Your task to perform on an android device: Play the last video I watched on Youtube Image 0: 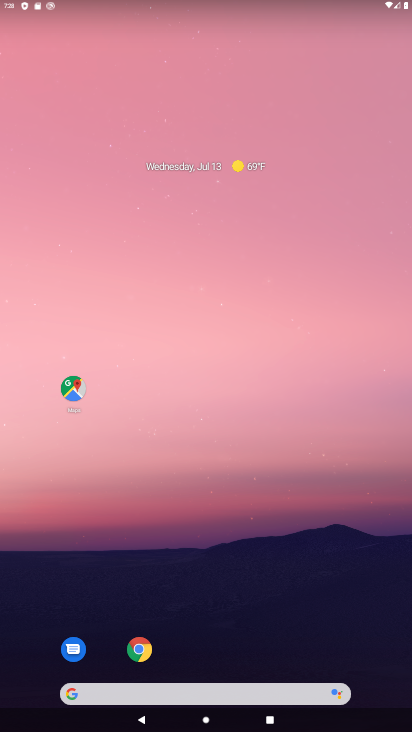
Step 0: drag from (210, 698) to (260, 95)
Your task to perform on an android device: Play the last video I watched on Youtube Image 1: 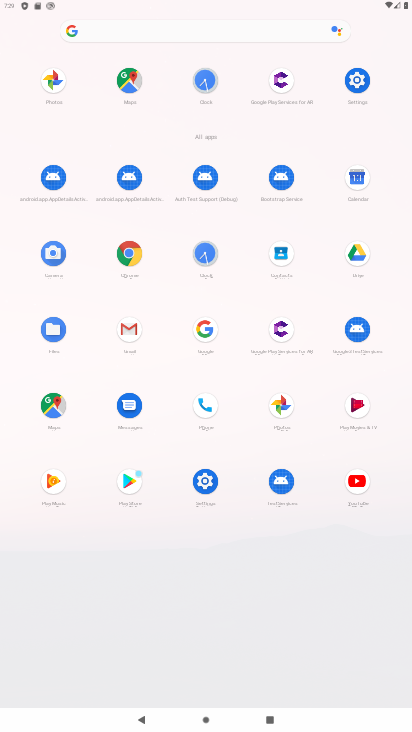
Step 1: click (358, 483)
Your task to perform on an android device: Play the last video I watched on Youtube Image 2: 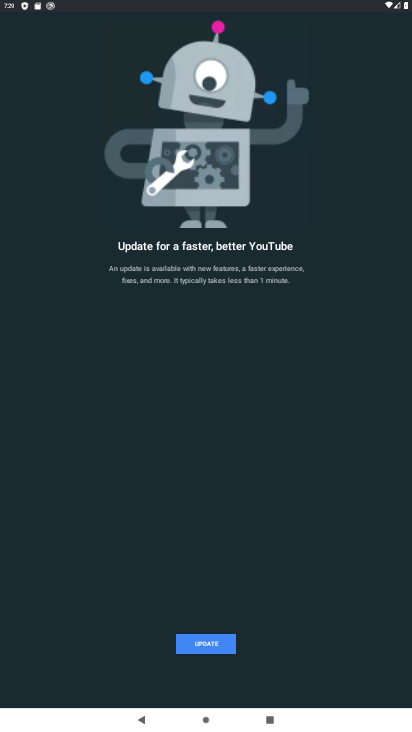
Step 2: click (213, 643)
Your task to perform on an android device: Play the last video I watched on Youtube Image 3: 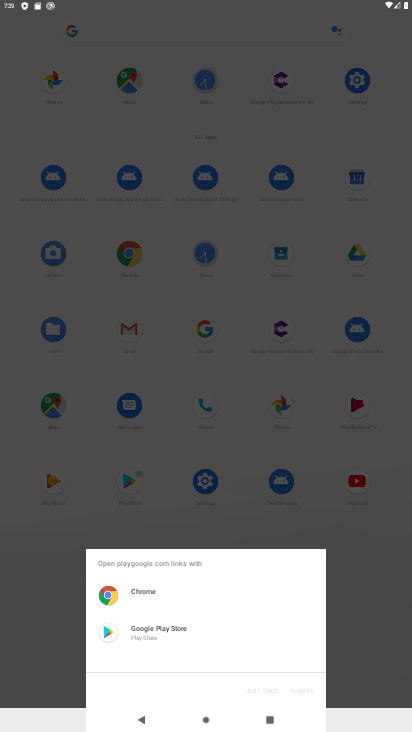
Step 3: click (172, 637)
Your task to perform on an android device: Play the last video I watched on Youtube Image 4: 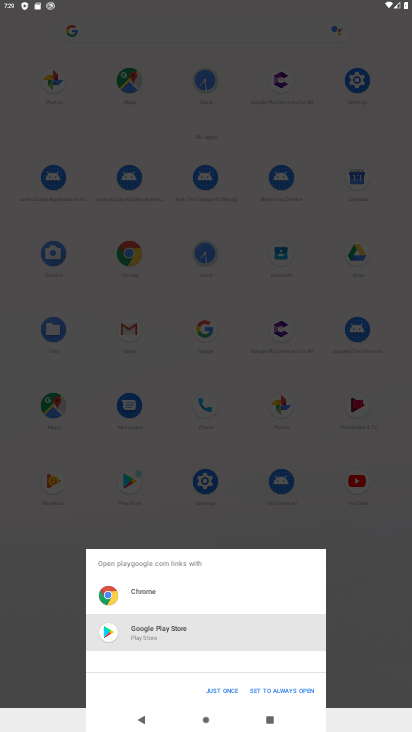
Step 4: click (220, 689)
Your task to perform on an android device: Play the last video I watched on Youtube Image 5: 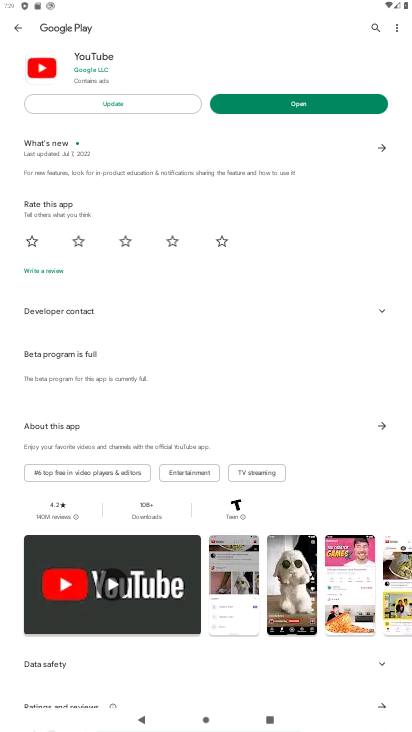
Step 5: click (114, 104)
Your task to perform on an android device: Play the last video I watched on Youtube Image 6: 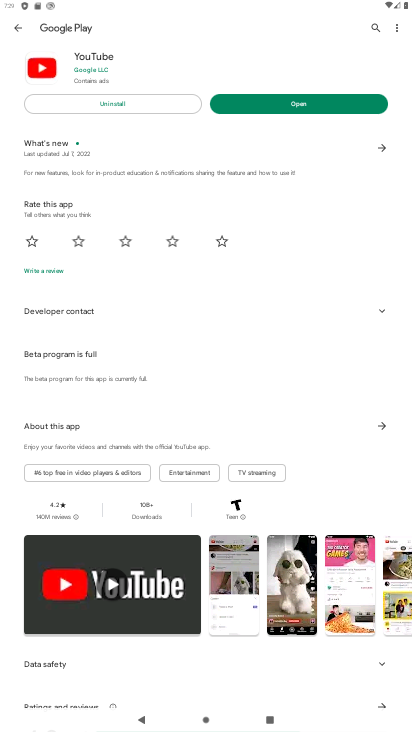
Step 6: click (311, 104)
Your task to perform on an android device: Play the last video I watched on Youtube Image 7: 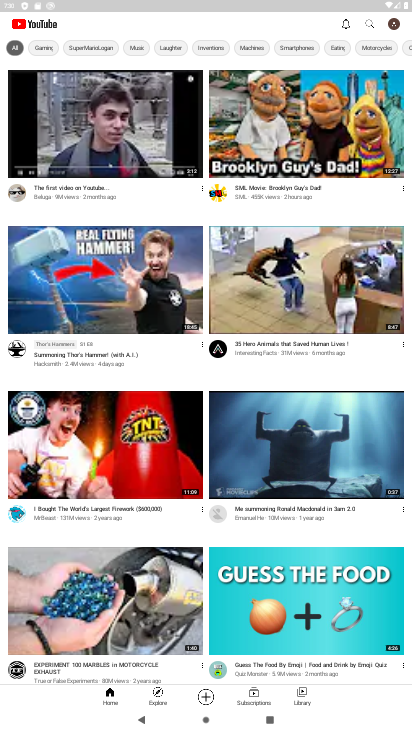
Step 7: click (305, 696)
Your task to perform on an android device: Play the last video I watched on Youtube Image 8: 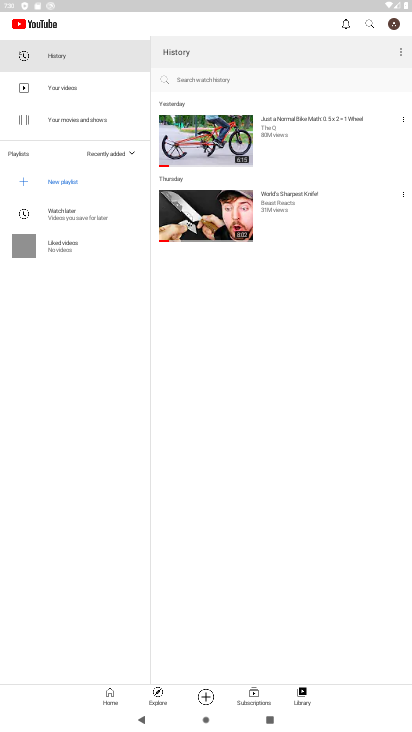
Step 8: click (223, 143)
Your task to perform on an android device: Play the last video I watched on Youtube Image 9: 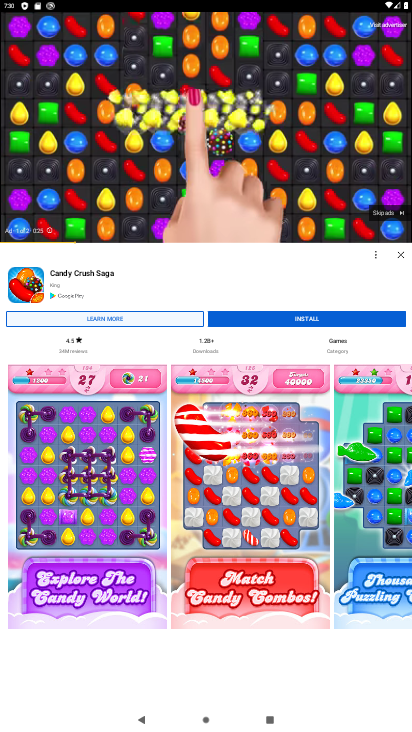
Step 9: click (394, 217)
Your task to perform on an android device: Play the last video I watched on Youtube Image 10: 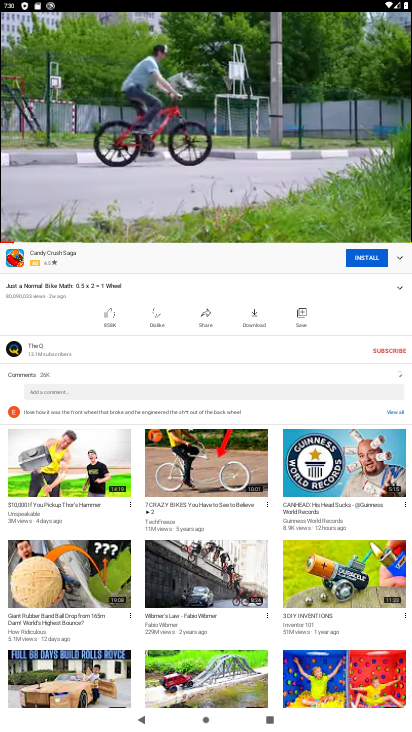
Step 10: click (234, 124)
Your task to perform on an android device: Play the last video I watched on Youtube Image 11: 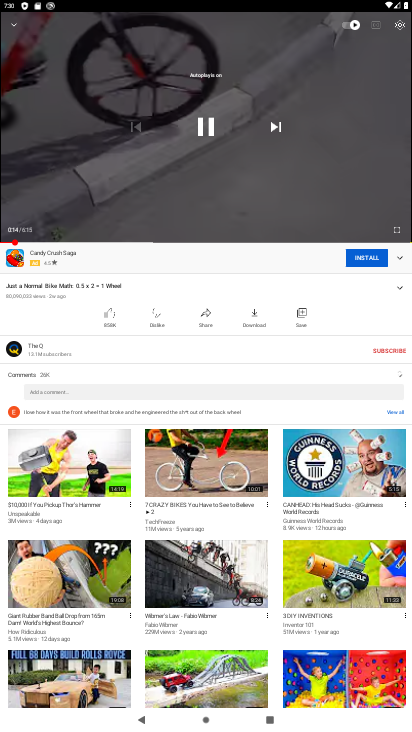
Step 11: click (234, 124)
Your task to perform on an android device: Play the last video I watched on Youtube Image 12: 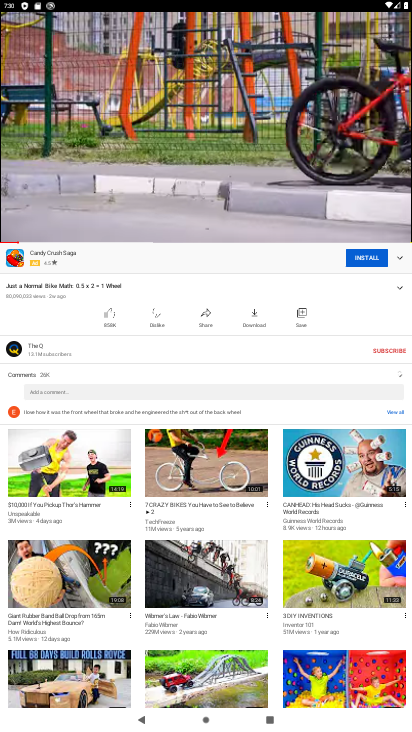
Step 12: click (220, 116)
Your task to perform on an android device: Play the last video I watched on Youtube Image 13: 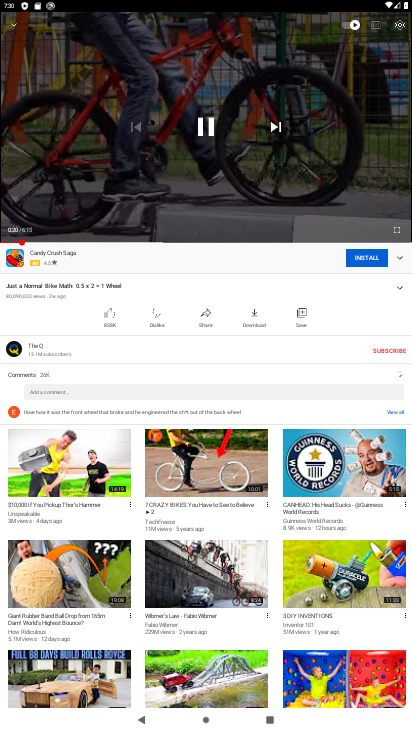
Step 13: click (209, 126)
Your task to perform on an android device: Play the last video I watched on Youtube Image 14: 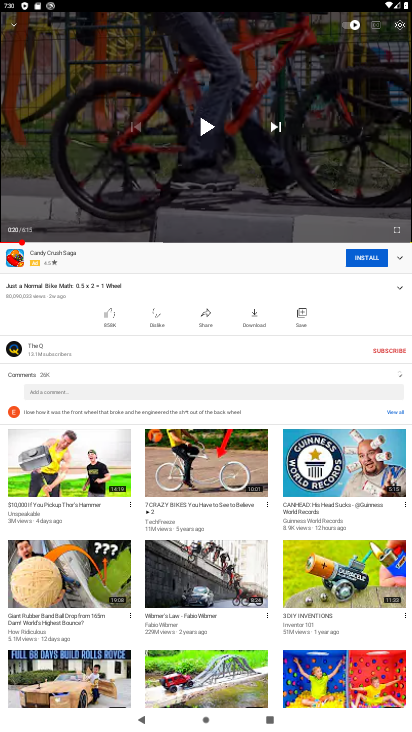
Step 14: task complete